Your task to perform on an android device: Check the weather Image 0: 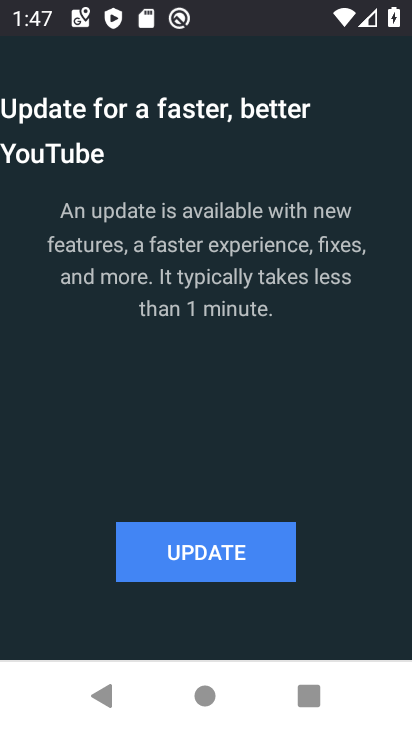
Step 0: press home button
Your task to perform on an android device: Check the weather Image 1: 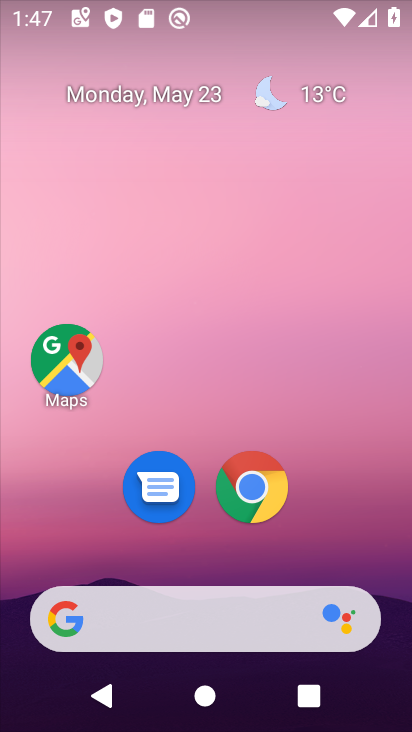
Step 1: click (313, 91)
Your task to perform on an android device: Check the weather Image 2: 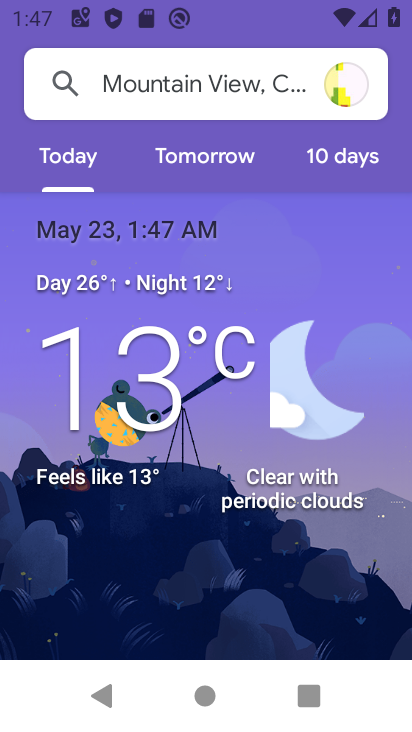
Step 2: task complete